Your task to perform on an android device: Show me recent news Image 0: 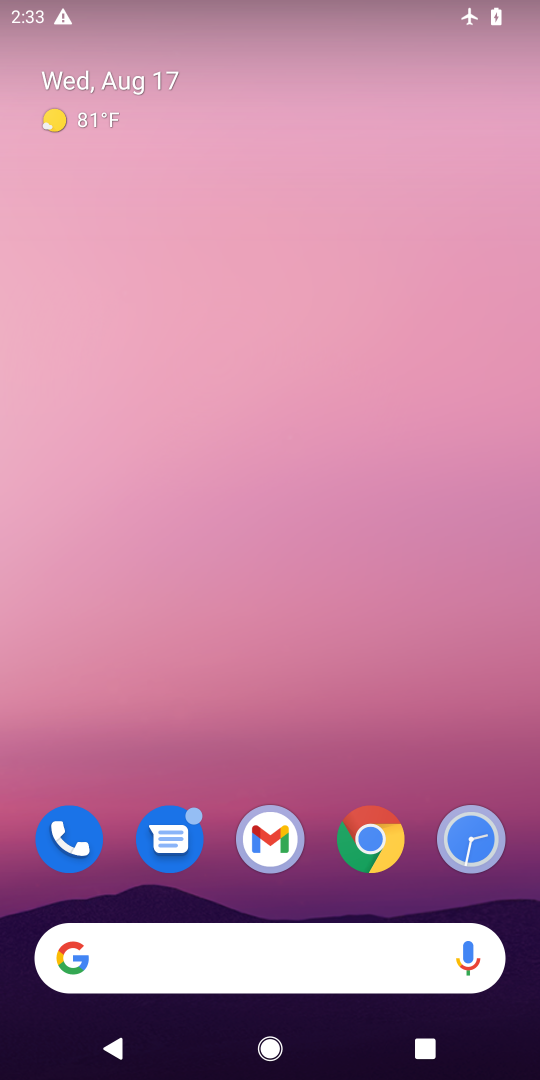
Step 0: drag from (0, 443) to (523, 442)
Your task to perform on an android device: Show me recent news Image 1: 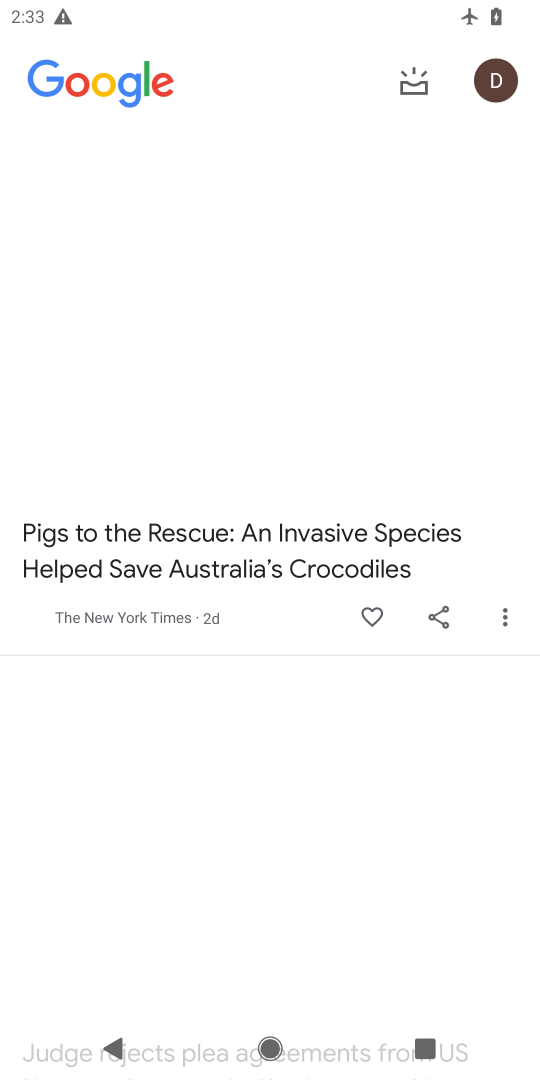
Step 1: task complete